Your task to perform on an android device: What is the recent news? Image 0: 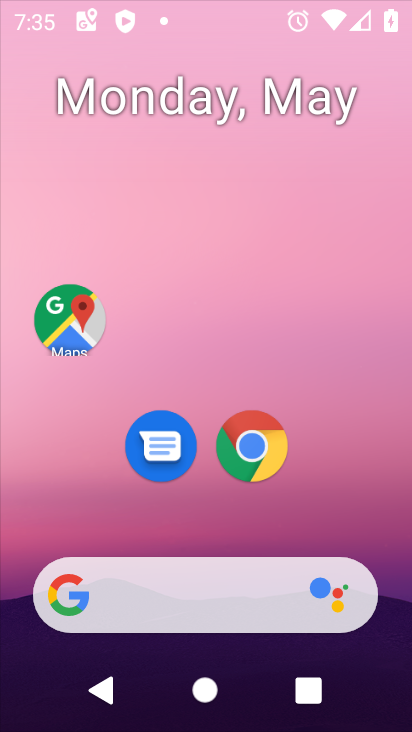
Step 0: drag from (332, 497) to (205, 183)
Your task to perform on an android device: What is the recent news? Image 1: 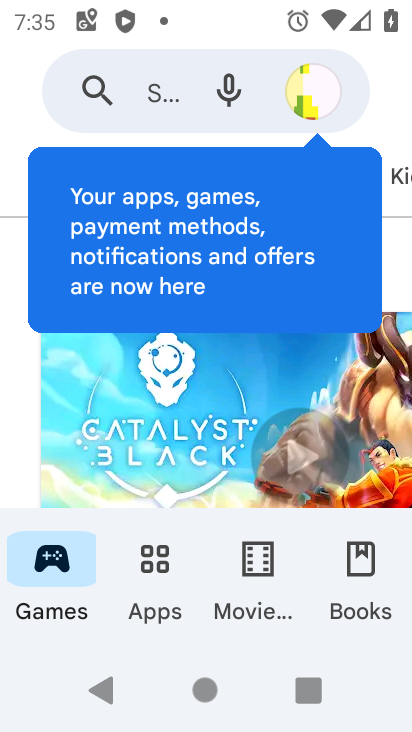
Step 1: press home button
Your task to perform on an android device: What is the recent news? Image 2: 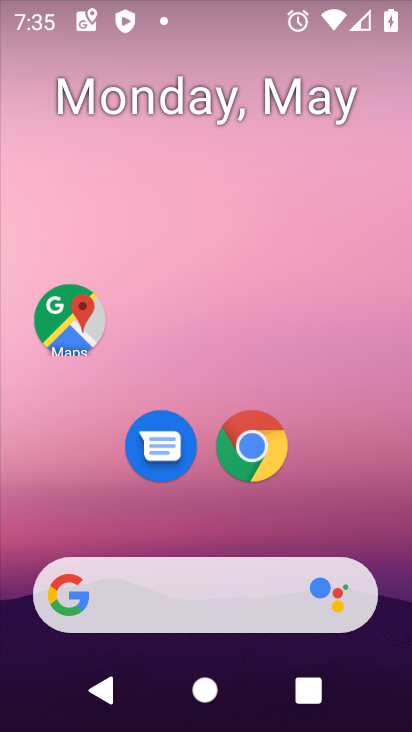
Step 2: click (161, 579)
Your task to perform on an android device: What is the recent news? Image 3: 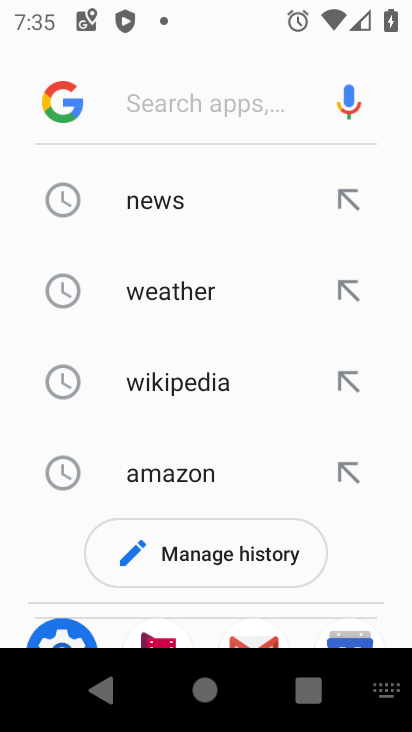
Step 3: click (152, 187)
Your task to perform on an android device: What is the recent news? Image 4: 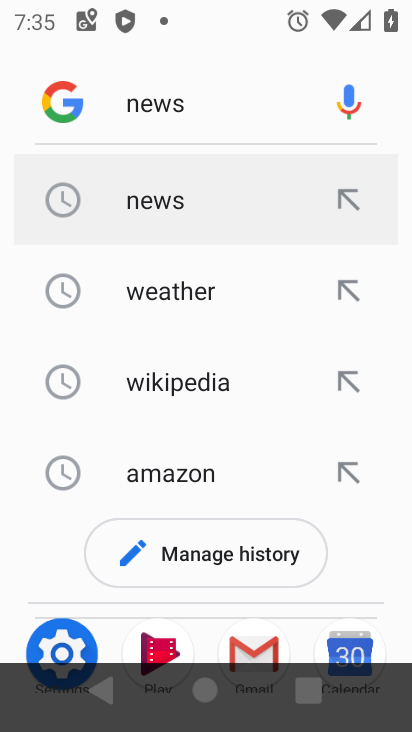
Step 4: click (159, 193)
Your task to perform on an android device: What is the recent news? Image 5: 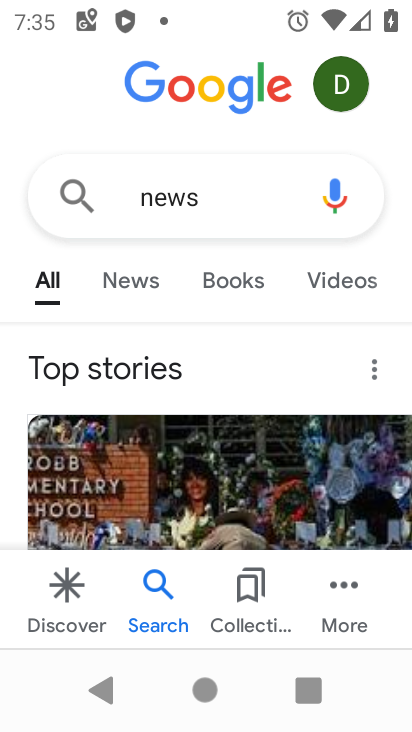
Step 5: task complete